Your task to perform on an android device: Do I have any events today? Image 0: 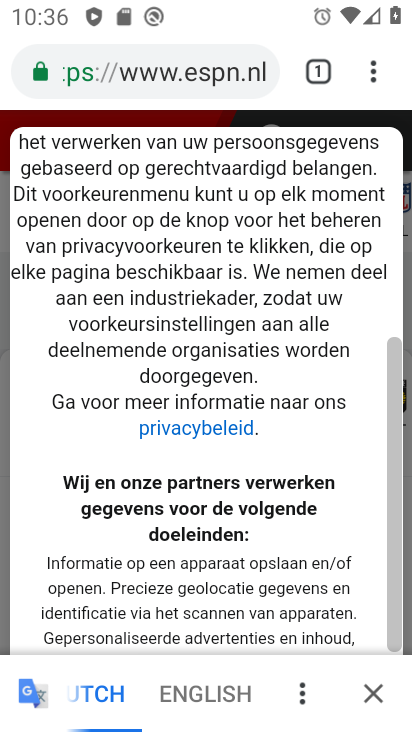
Step 0: press home button
Your task to perform on an android device: Do I have any events today? Image 1: 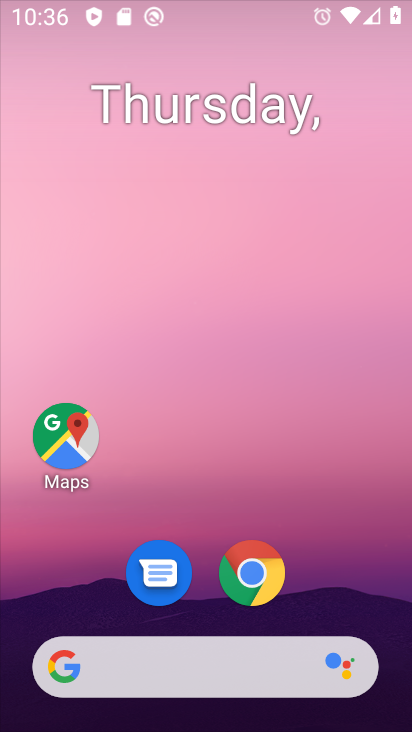
Step 1: drag from (283, 508) to (290, 78)
Your task to perform on an android device: Do I have any events today? Image 2: 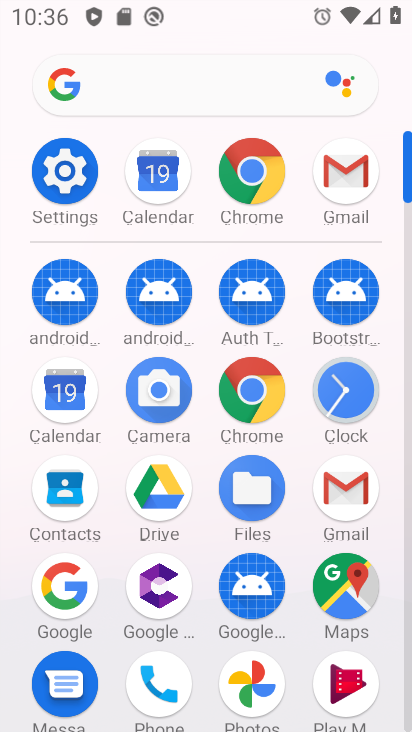
Step 2: click (65, 406)
Your task to perform on an android device: Do I have any events today? Image 3: 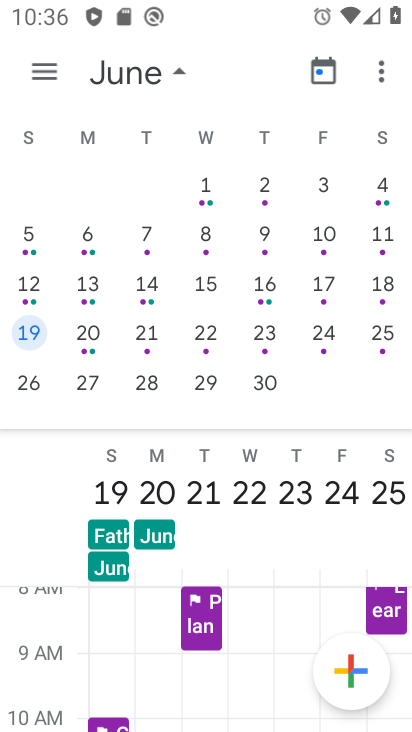
Step 3: click (165, 64)
Your task to perform on an android device: Do I have any events today? Image 4: 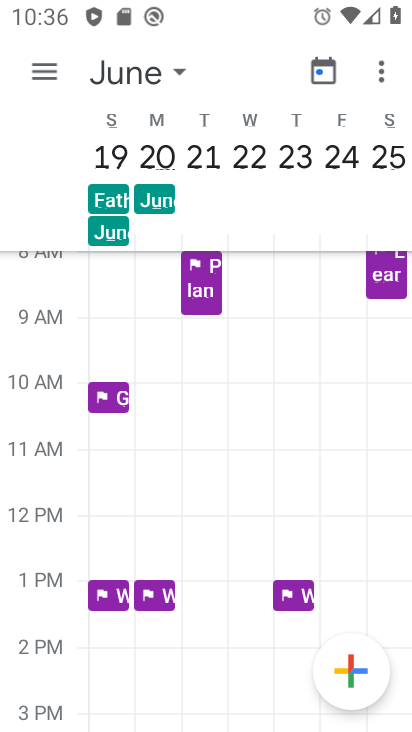
Step 4: click (155, 88)
Your task to perform on an android device: Do I have any events today? Image 5: 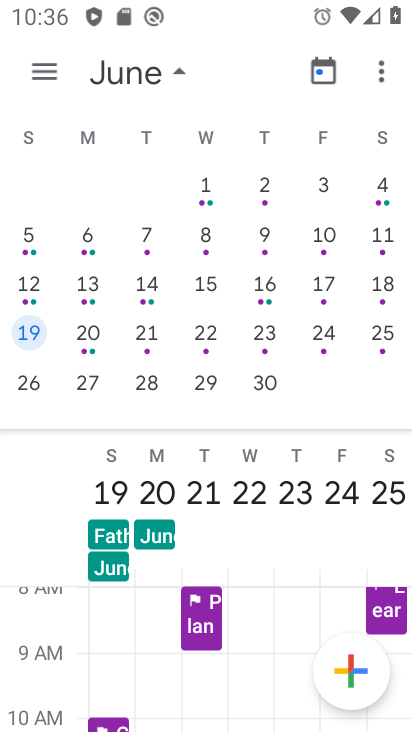
Step 5: drag from (55, 292) to (411, 337)
Your task to perform on an android device: Do I have any events today? Image 6: 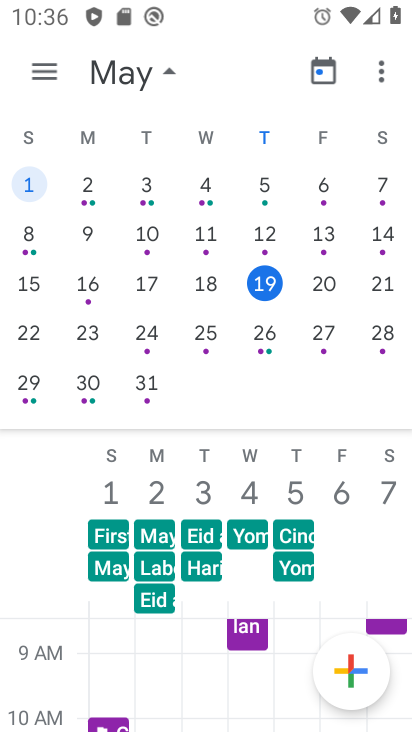
Step 6: click (260, 279)
Your task to perform on an android device: Do I have any events today? Image 7: 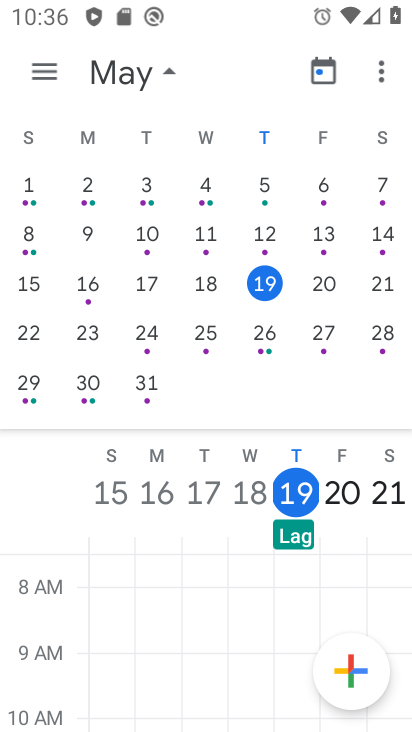
Step 7: task complete